Your task to perform on an android device: When is my next meeting? Image 0: 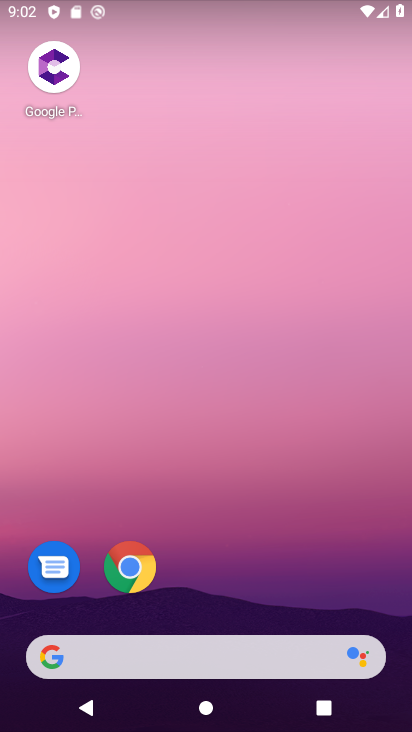
Step 0: drag from (201, 575) to (233, 163)
Your task to perform on an android device: When is my next meeting? Image 1: 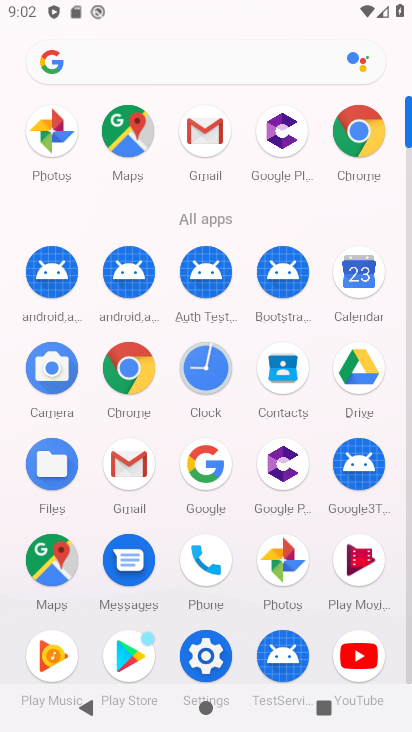
Step 1: click (350, 303)
Your task to perform on an android device: When is my next meeting? Image 2: 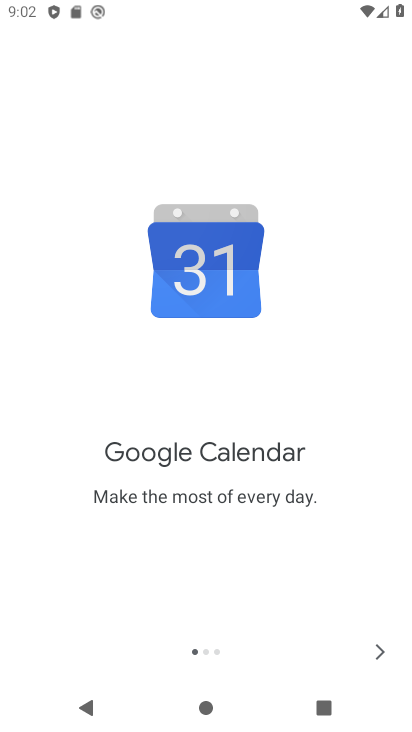
Step 2: click (394, 653)
Your task to perform on an android device: When is my next meeting? Image 3: 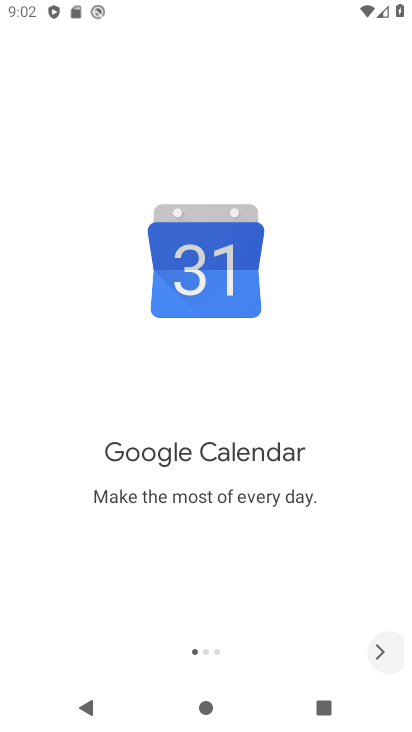
Step 3: click (389, 653)
Your task to perform on an android device: When is my next meeting? Image 4: 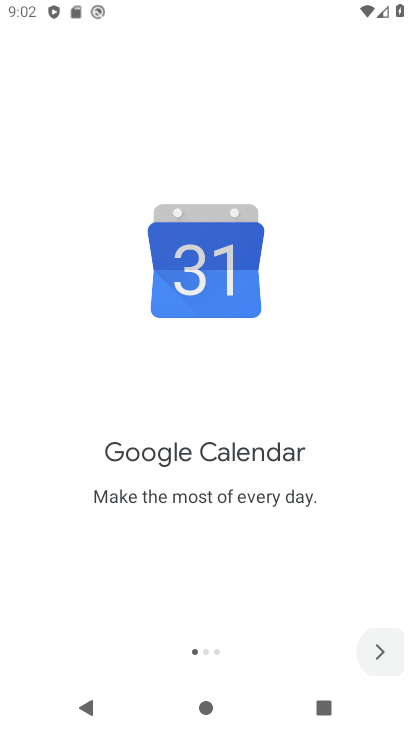
Step 4: click (387, 653)
Your task to perform on an android device: When is my next meeting? Image 5: 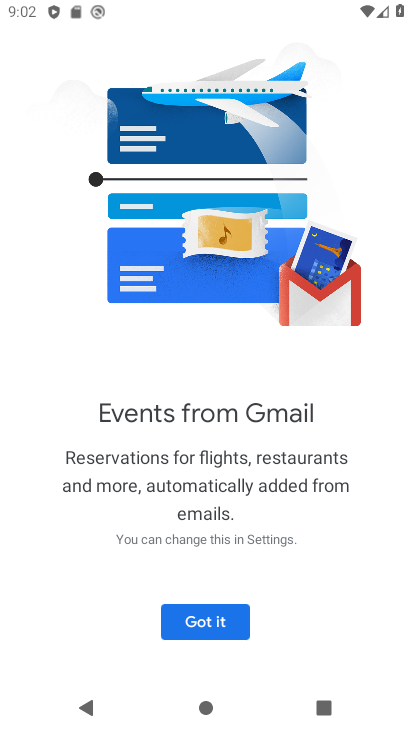
Step 5: click (194, 613)
Your task to perform on an android device: When is my next meeting? Image 6: 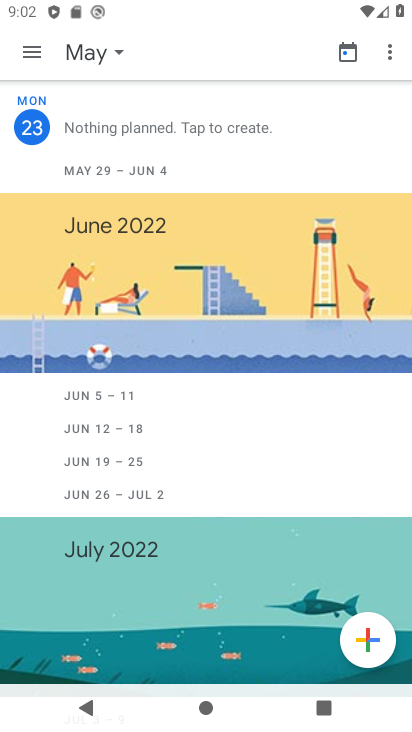
Step 6: drag from (198, 274) to (224, 550)
Your task to perform on an android device: When is my next meeting? Image 7: 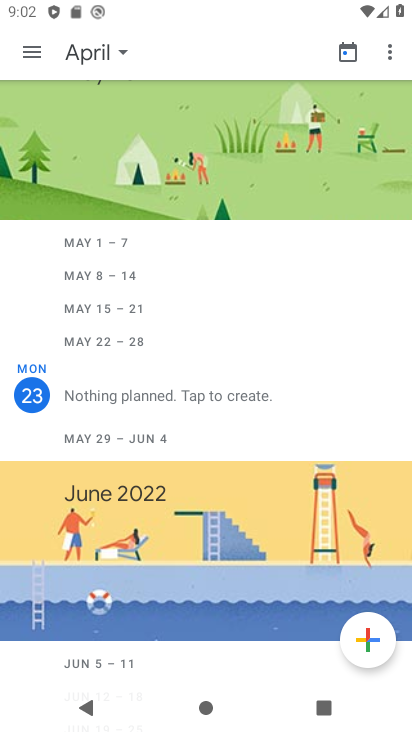
Step 7: drag from (224, 550) to (225, 331)
Your task to perform on an android device: When is my next meeting? Image 8: 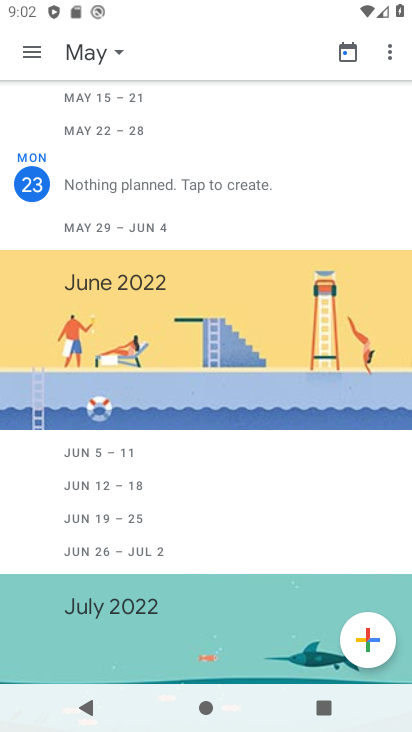
Step 8: click (36, 52)
Your task to perform on an android device: When is my next meeting? Image 9: 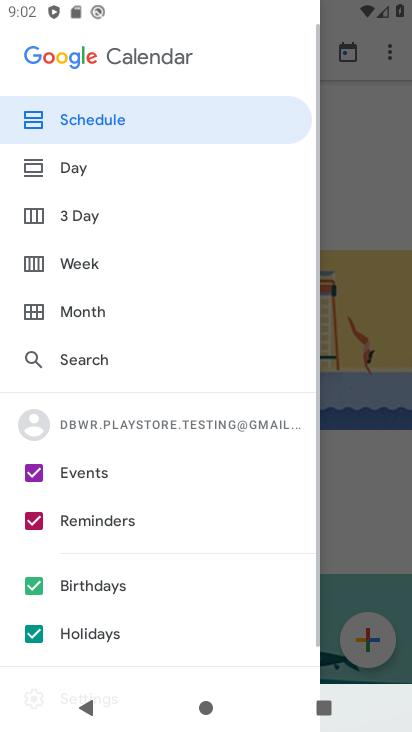
Step 9: click (109, 117)
Your task to perform on an android device: When is my next meeting? Image 10: 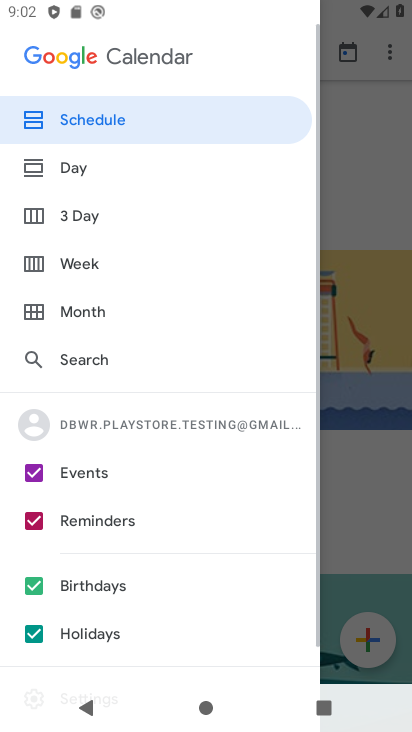
Step 10: click (342, 139)
Your task to perform on an android device: When is my next meeting? Image 11: 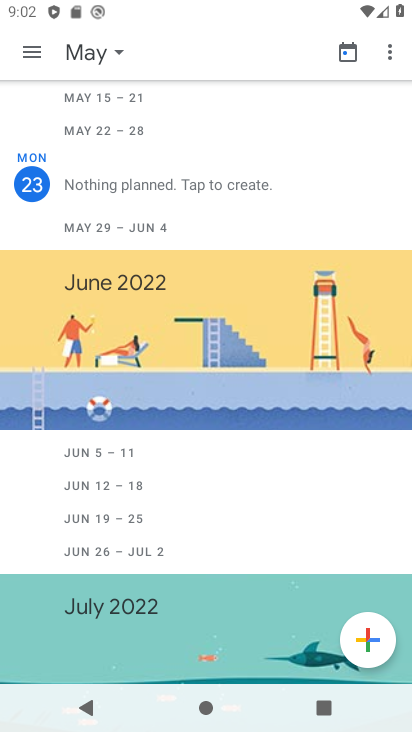
Step 11: drag from (251, 175) to (251, 549)
Your task to perform on an android device: When is my next meeting? Image 12: 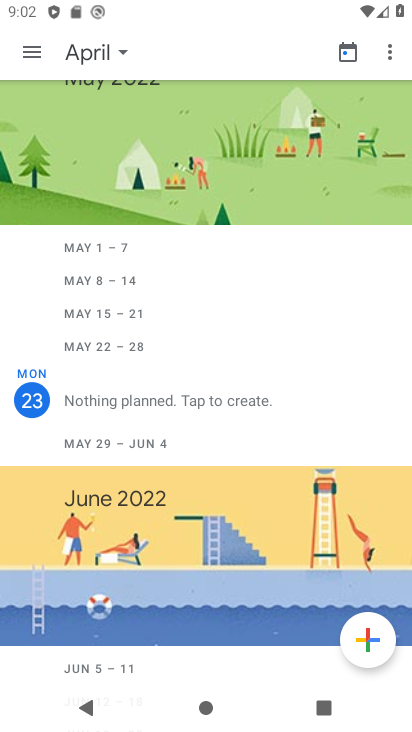
Step 12: drag from (170, 203) to (194, 630)
Your task to perform on an android device: When is my next meeting? Image 13: 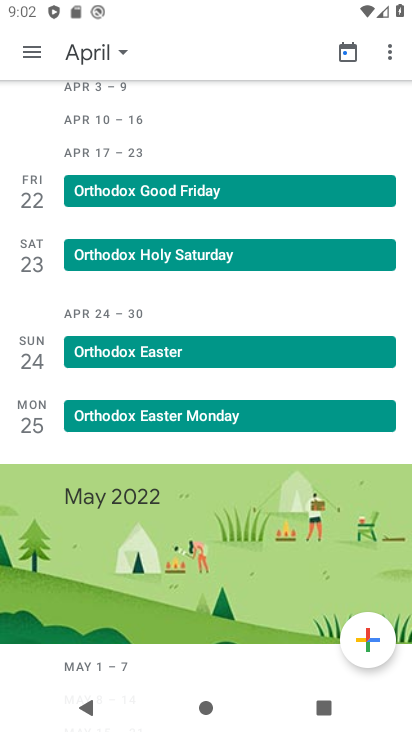
Step 13: click (105, 37)
Your task to perform on an android device: When is my next meeting? Image 14: 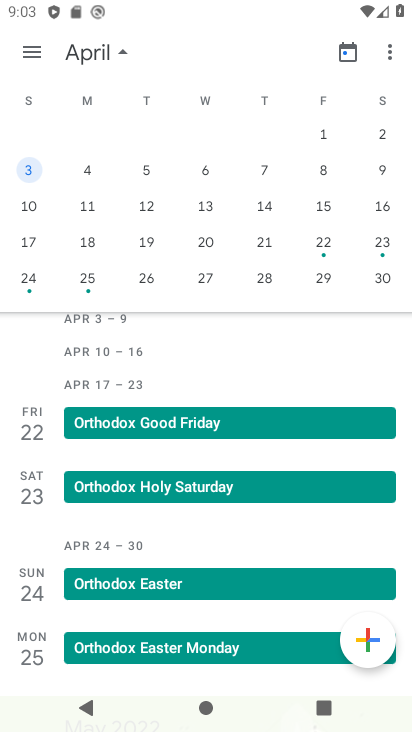
Step 14: drag from (341, 192) to (0, 209)
Your task to perform on an android device: When is my next meeting? Image 15: 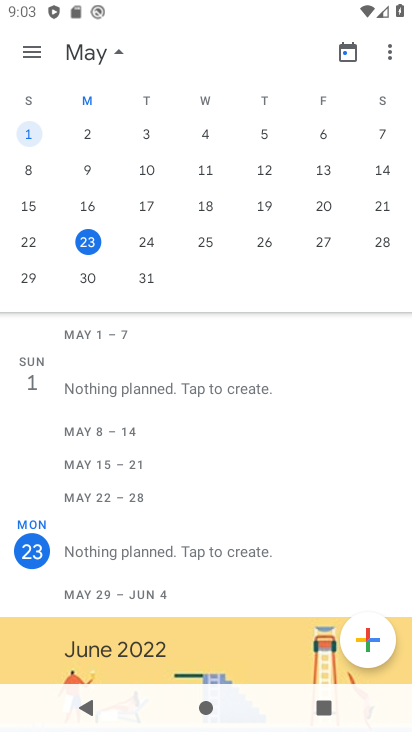
Step 15: click (188, 240)
Your task to perform on an android device: When is my next meeting? Image 16: 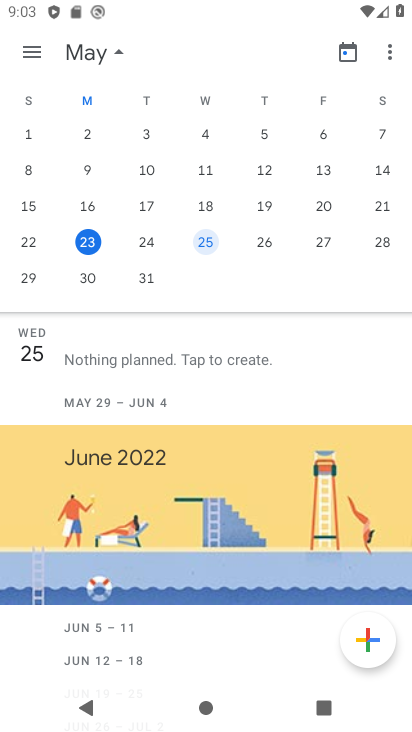
Step 16: click (91, 240)
Your task to perform on an android device: When is my next meeting? Image 17: 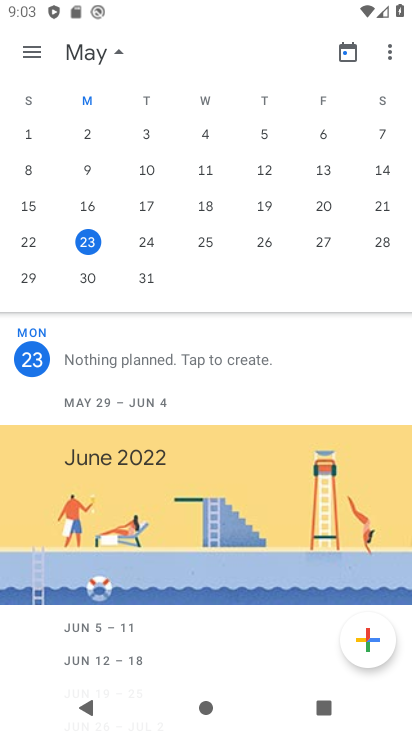
Step 17: drag from (223, 515) to (216, 335)
Your task to perform on an android device: When is my next meeting? Image 18: 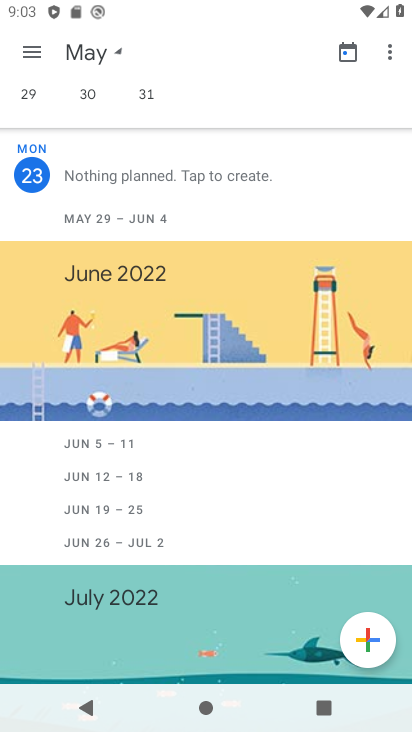
Step 18: drag from (226, 570) to (204, 347)
Your task to perform on an android device: When is my next meeting? Image 19: 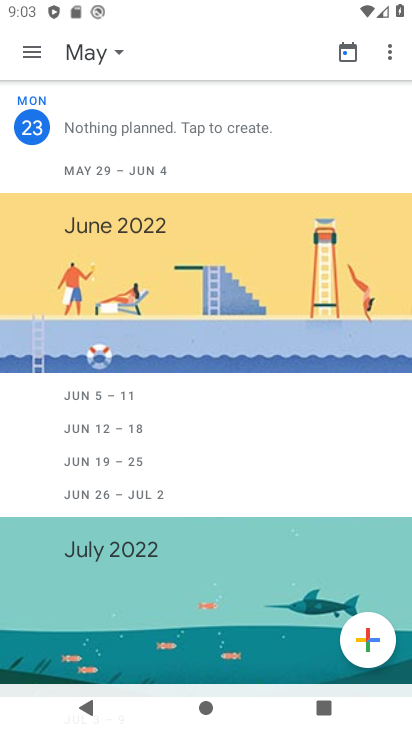
Step 19: click (125, 394)
Your task to perform on an android device: When is my next meeting? Image 20: 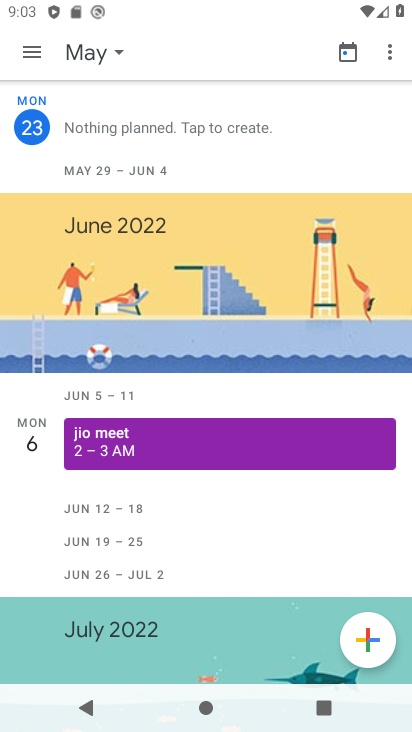
Step 20: task complete